Your task to perform on an android device: Check the weather Image 0: 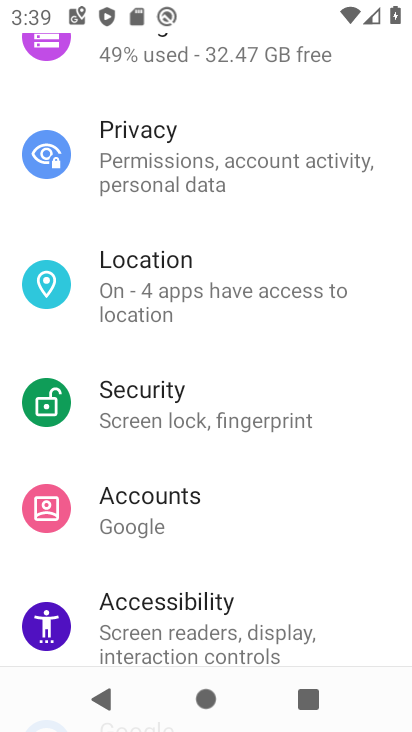
Step 0: drag from (317, 619) to (379, 183)
Your task to perform on an android device: Check the weather Image 1: 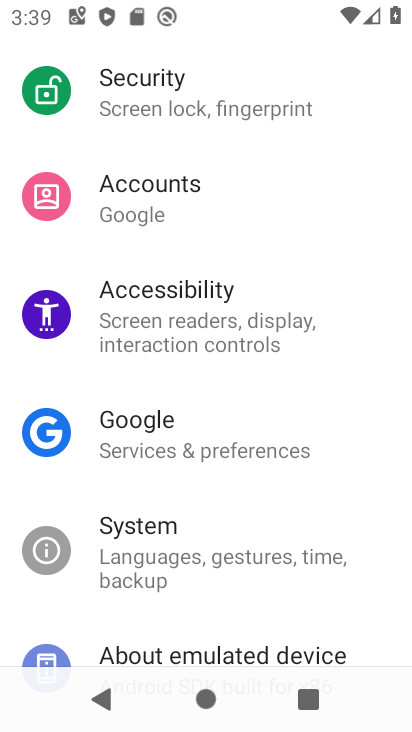
Step 1: press home button
Your task to perform on an android device: Check the weather Image 2: 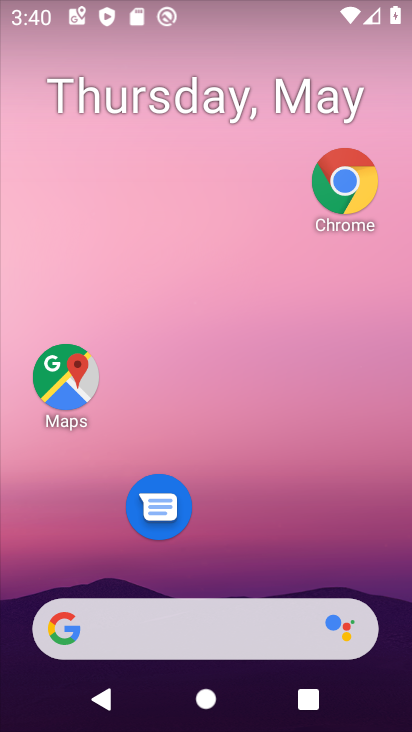
Step 2: click (339, 178)
Your task to perform on an android device: Check the weather Image 3: 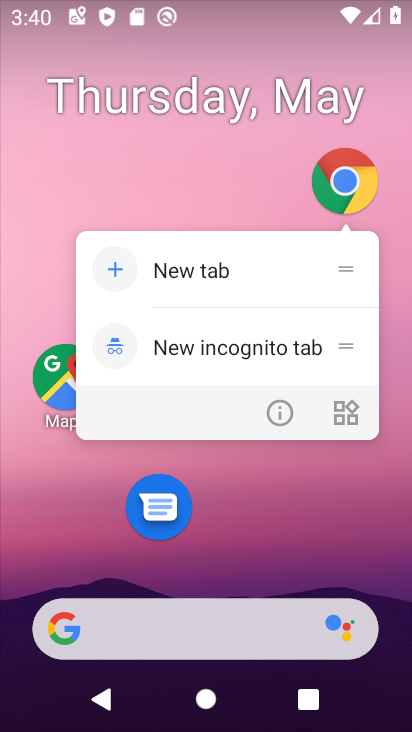
Step 3: click (338, 180)
Your task to perform on an android device: Check the weather Image 4: 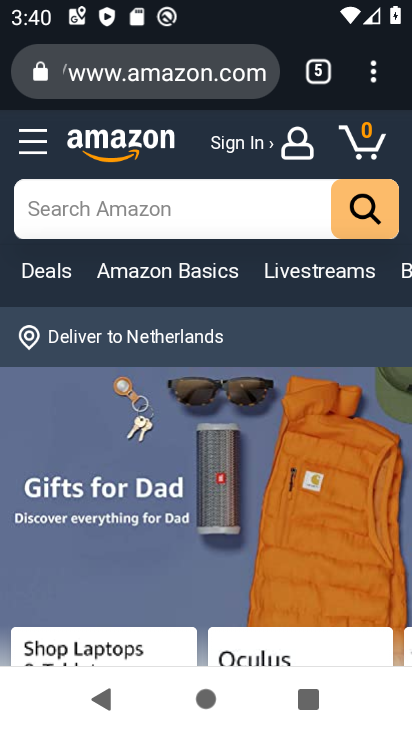
Step 4: drag from (371, 76) to (266, 157)
Your task to perform on an android device: Check the weather Image 5: 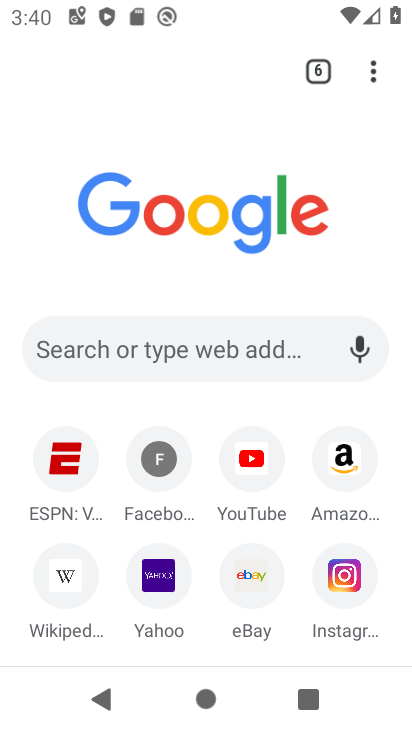
Step 5: click (204, 341)
Your task to perform on an android device: Check the weather Image 6: 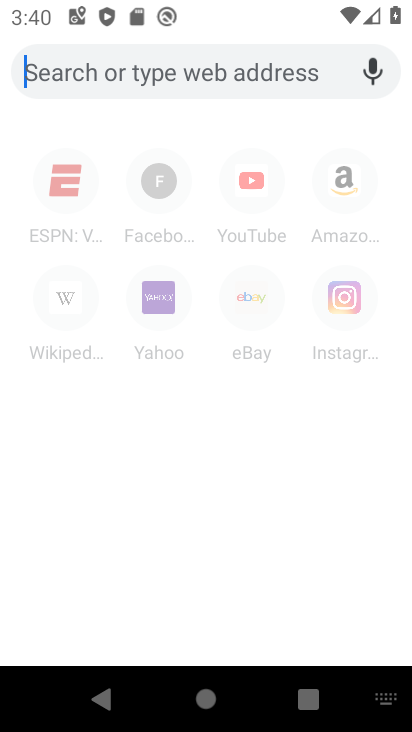
Step 6: type "Check the weather"
Your task to perform on an android device: Check the weather Image 7: 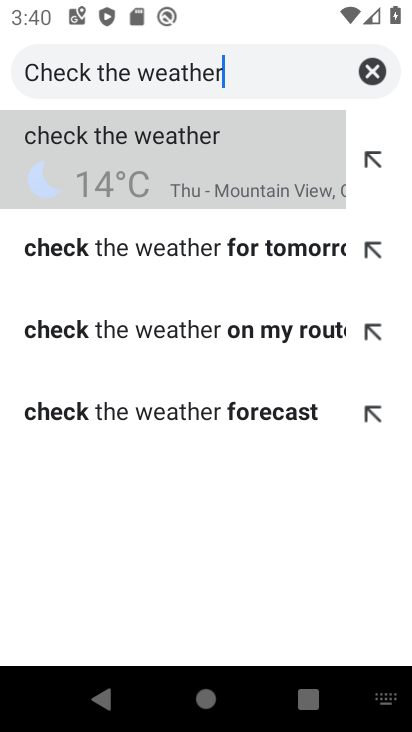
Step 7: click (211, 153)
Your task to perform on an android device: Check the weather Image 8: 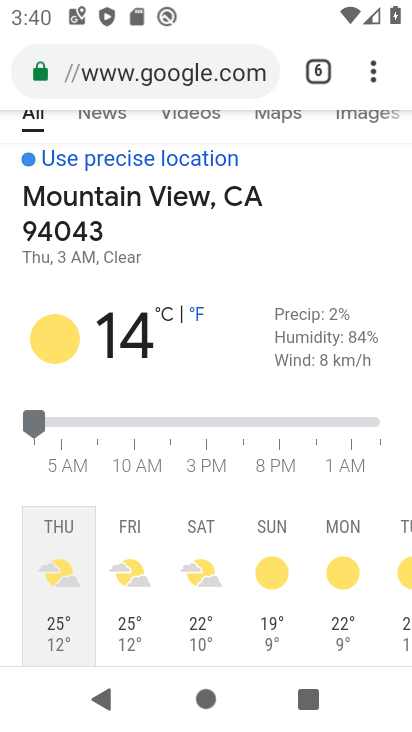
Step 8: task complete